Your task to perform on an android device: Go to privacy settings Image 0: 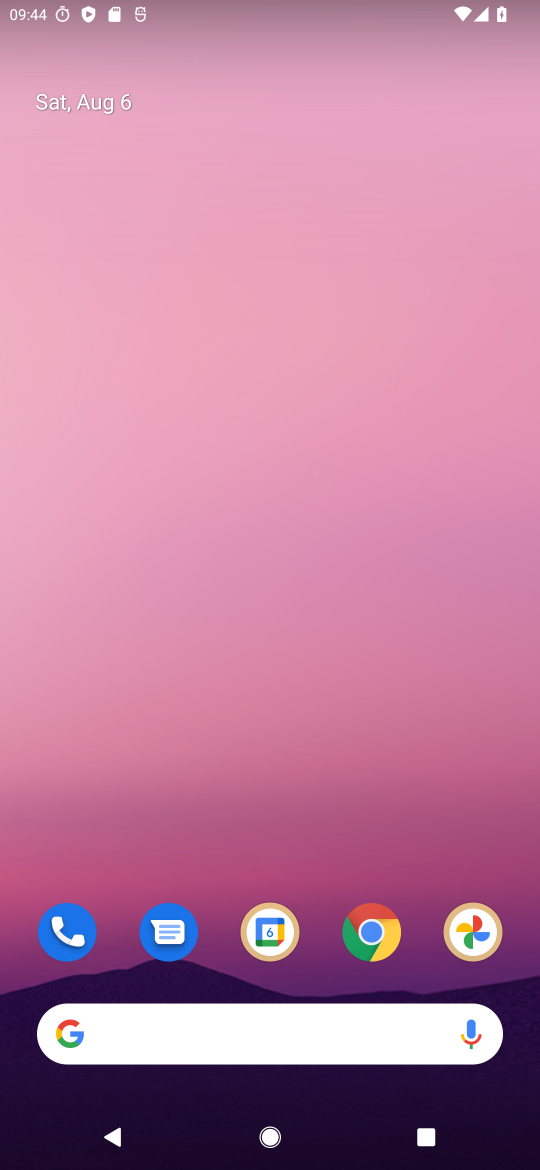
Step 0: drag from (305, 1032) to (440, 169)
Your task to perform on an android device: Go to privacy settings Image 1: 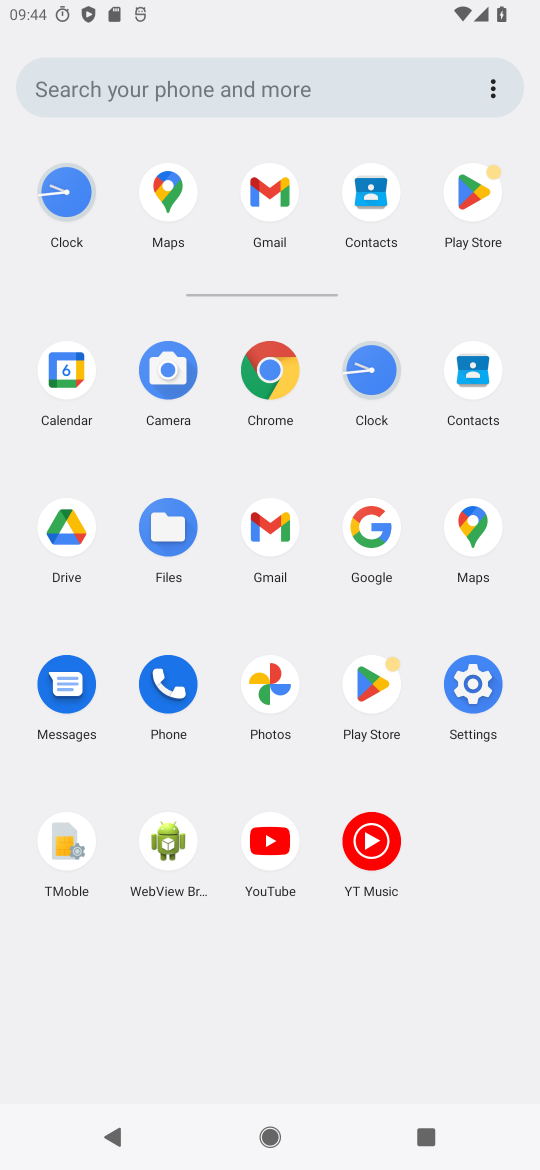
Step 1: click (479, 678)
Your task to perform on an android device: Go to privacy settings Image 2: 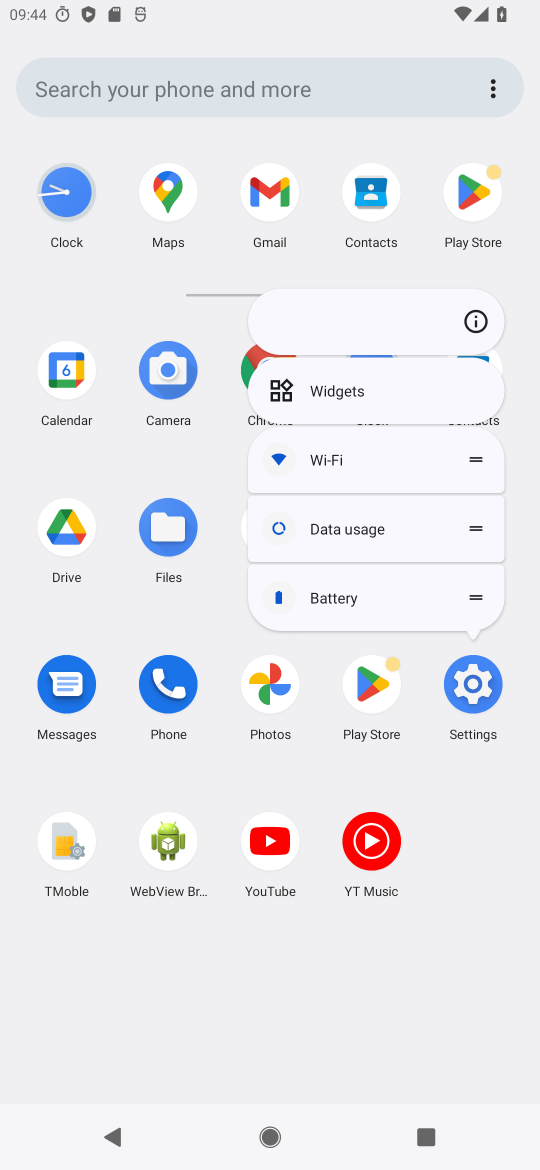
Step 2: click (475, 675)
Your task to perform on an android device: Go to privacy settings Image 3: 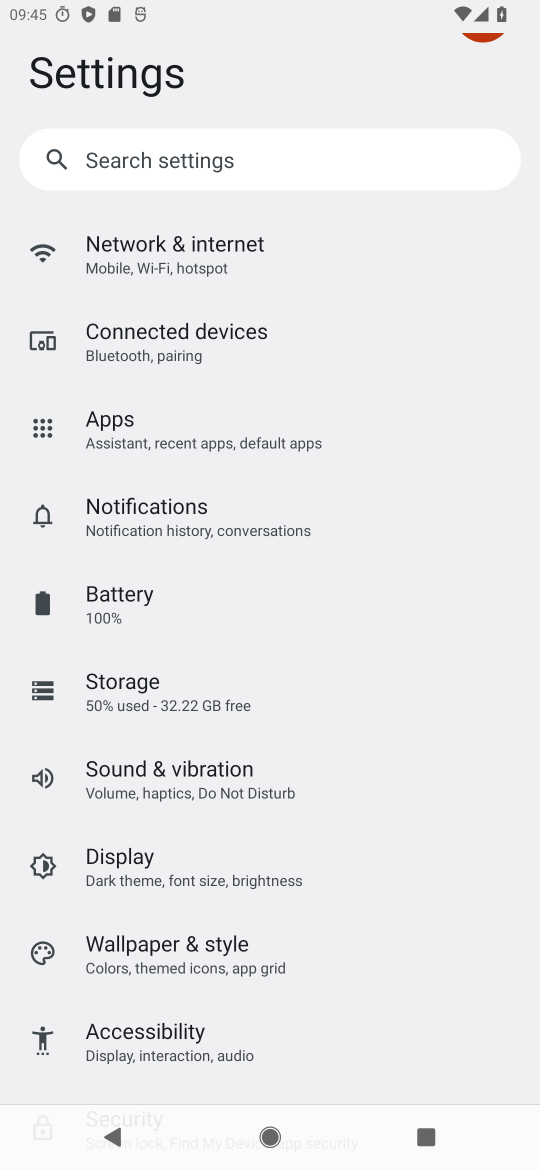
Step 3: drag from (368, 719) to (458, 234)
Your task to perform on an android device: Go to privacy settings Image 4: 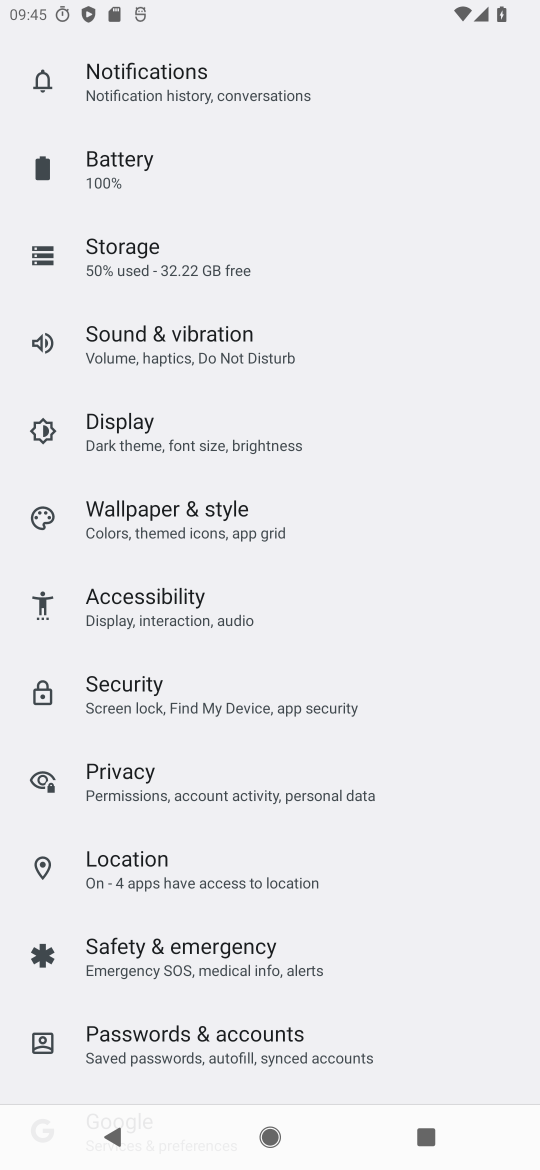
Step 4: click (136, 790)
Your task to perform on an android device: Go to privacy settings Image 5: 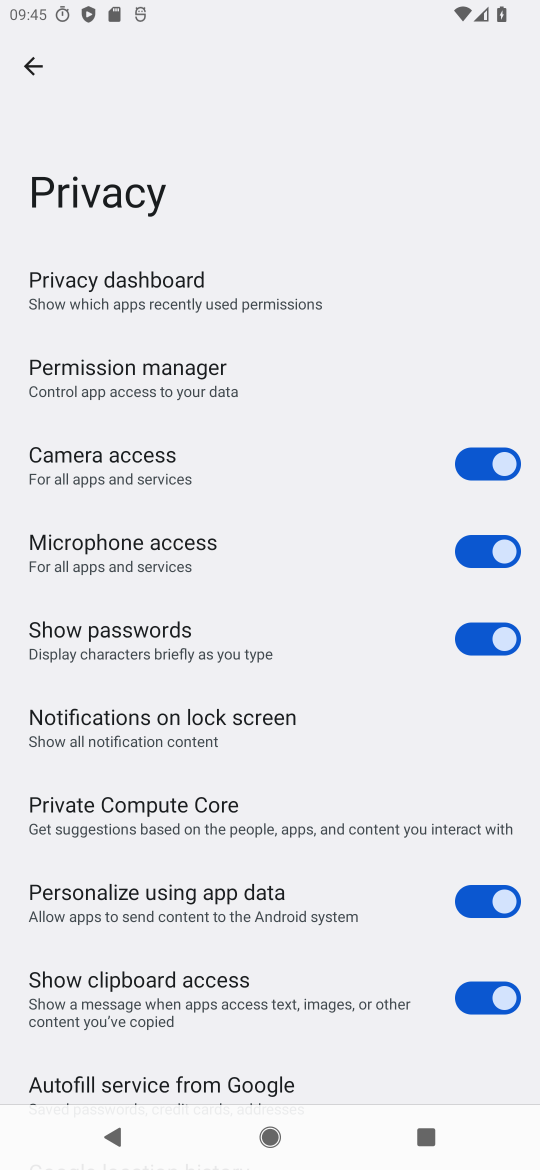
Step 5: task complete